Your task to perform on an android device: move an email to a new category in the gmail app Image 0: 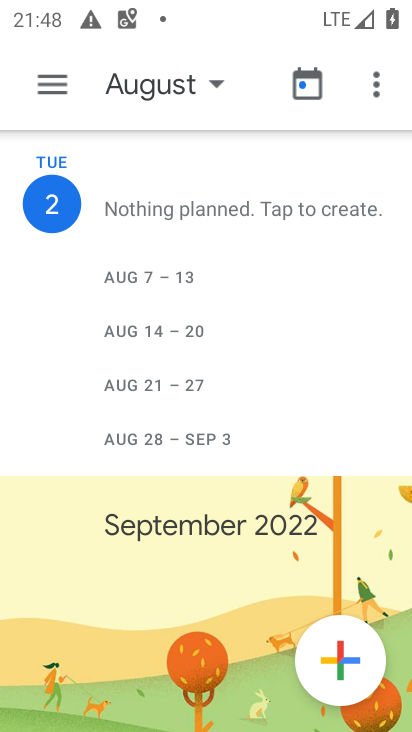
Step 0: press home button
Your task to perform on an android device: move an email to a new category in the gmail app Image 1: 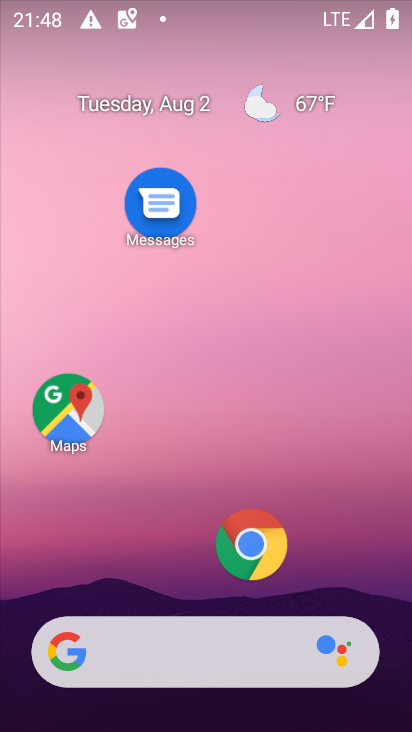
Step 1: drag from (171, 585) to (173, 192)
Your task to perform on an android device: move an email to a new category in the gmail app Image 2: 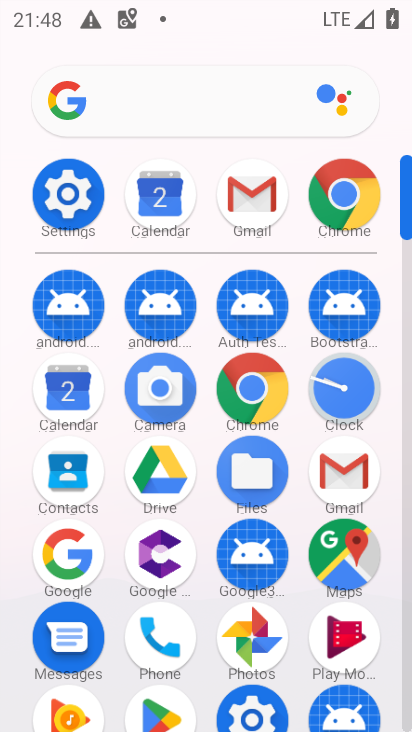
Step 2: click (213, 230)
Your task to perform on an android device: move an email to a new category in the gmail app Image 3: 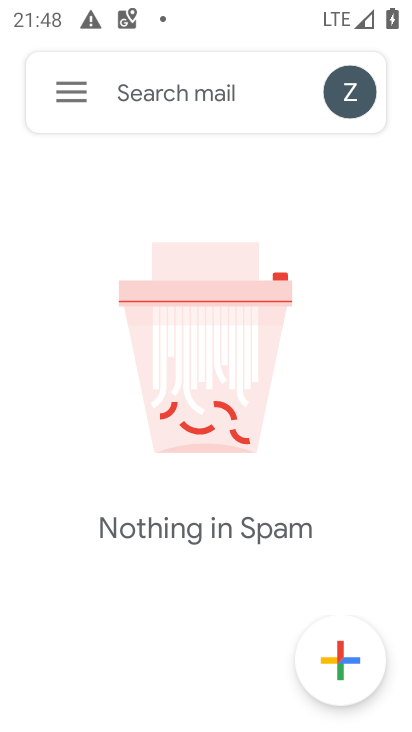
Step 3: click (75, 98)
Your task to perform on an android device: move an email to a new category in the gmail app Image 4: 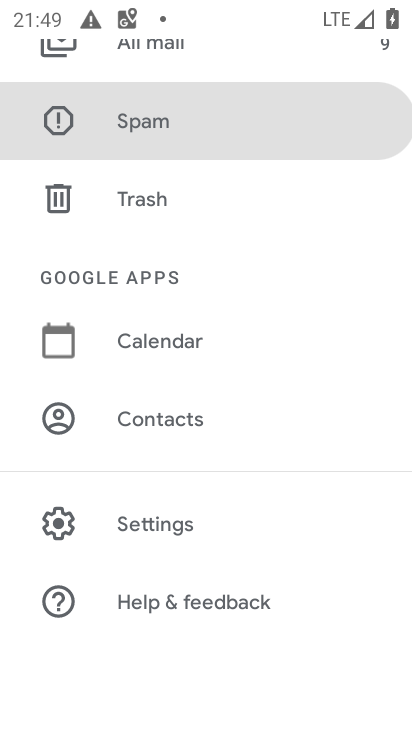
Step 4: drag from (184, 220) to (207, 583)
Your task to perform on an android device: move an email to a new category in the gmail app Image 5: 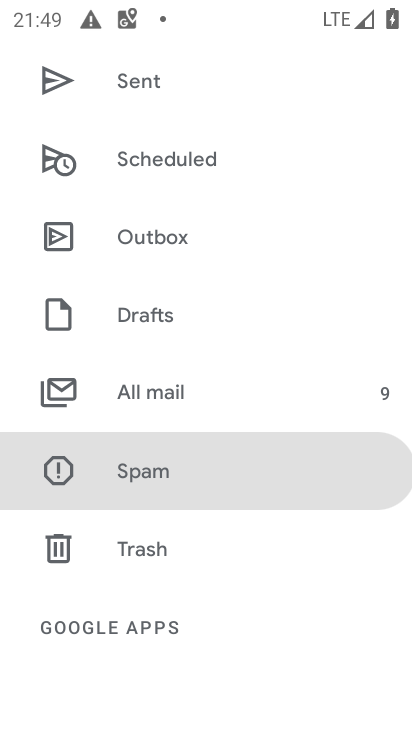
Step 5: click (169, 409)
Your task to perform on an android device: move an email to a new category in the gmail app Image 6: 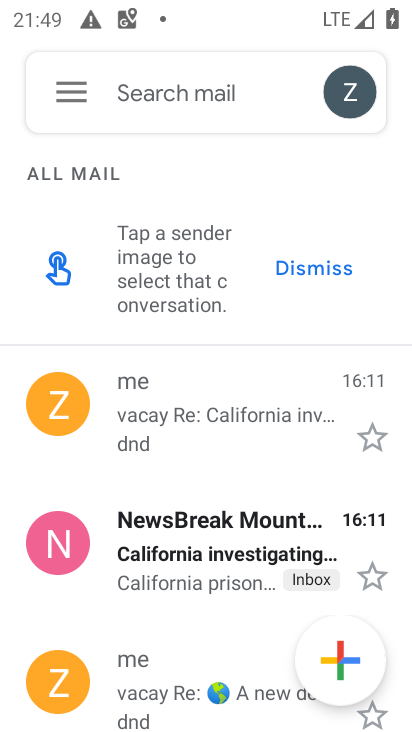
Step 6: drag from (176, 490) to (187, 251)
Your task to perform on an android device: move an email to a new category in the gmail app Image 7: 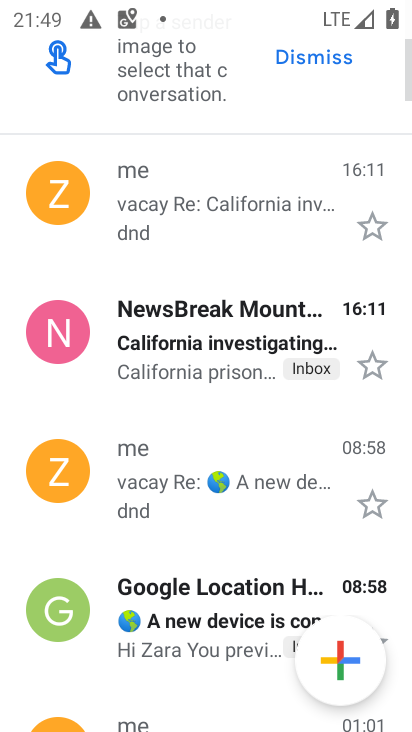
Step 7: click (172, 369)
Your task to perform on an android device: move an email to a new category in the gmail app Image 8: 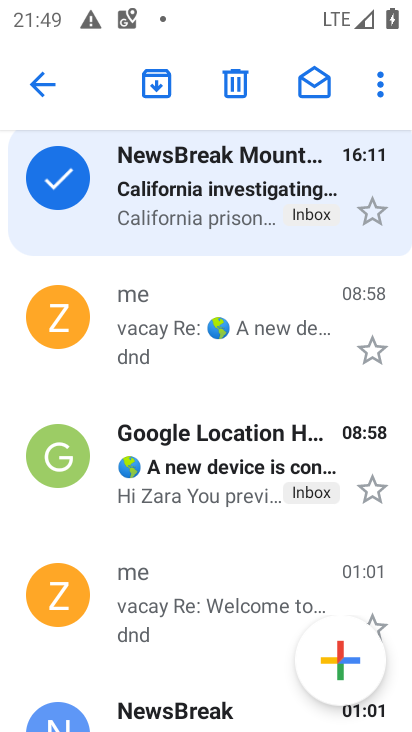
Step 8: click (374, 79)
Your task to perform on an android device: move an email to a new category in the gmail app Image 9: 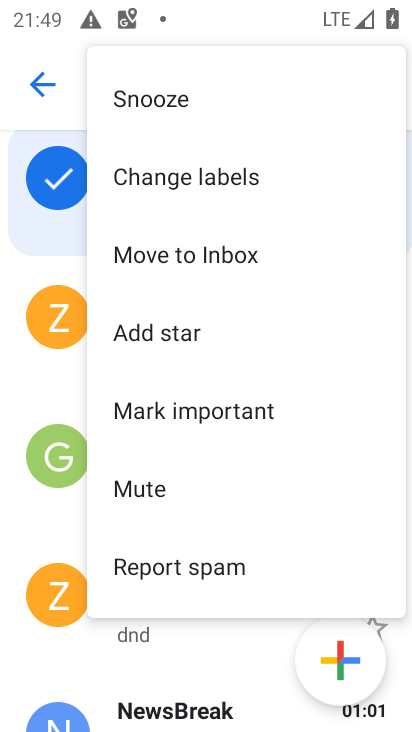
Step 9: click (212, 265)
Your task to perform on an android device: move an email to a new category in the gmail app Image 10: 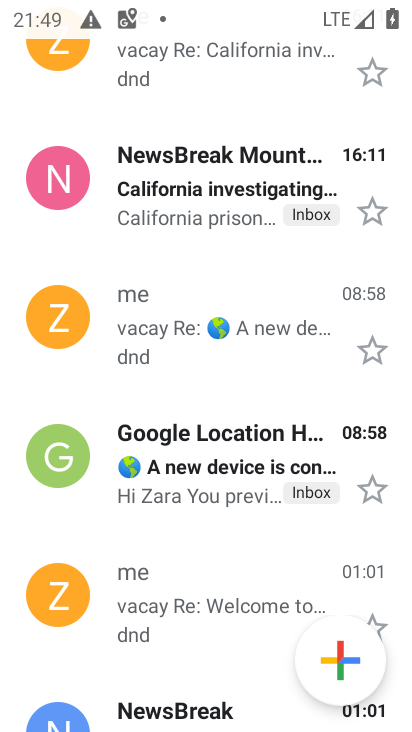
Step 10: task complete